Your task to perform on an android device: toggle improve location accuracy Image 0: 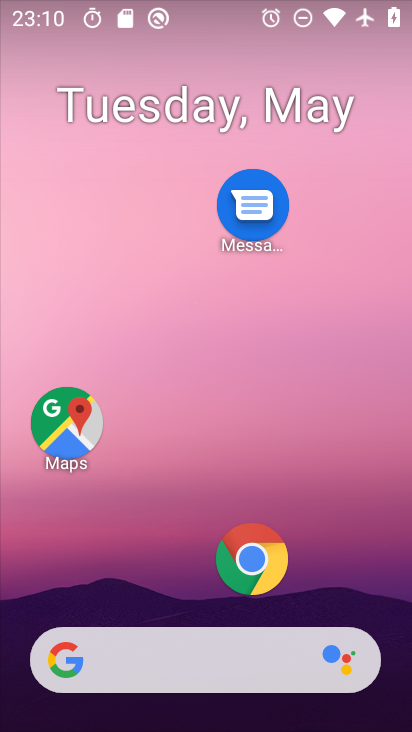
Step 0: drag from (205, 584) to (161, 233)
Your task to perform on an android device: toggle improve location accuracy Image 1: 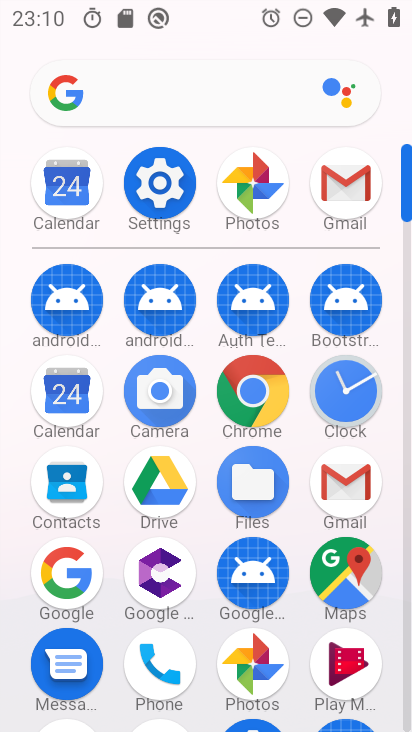
Step 1: click (169, 212)
Your task to perform on an android device: toggle improve location accuracy Image 2: 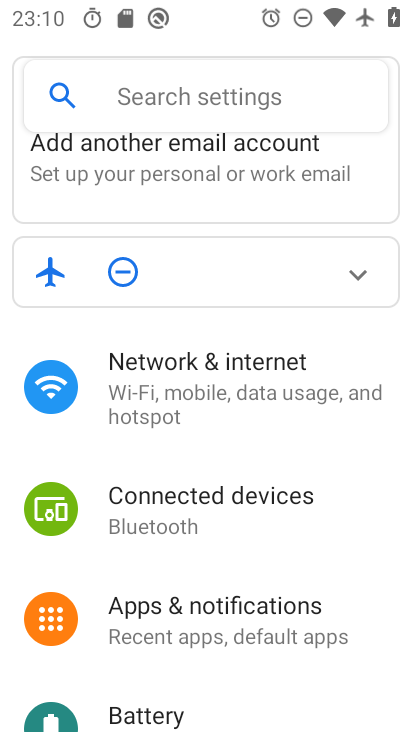
Step 2: drag from (261, 700) to (281, 435)
Your task to perform on an android device: toggle improve location accuracy Image 3: 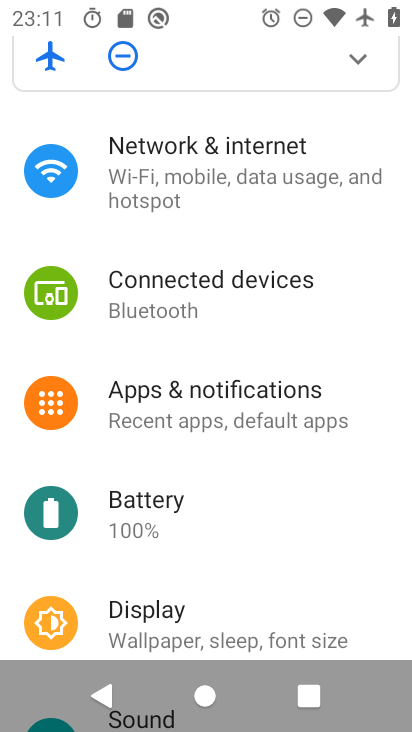
Step 3: drag from (253, 587) to (256, 345)
Your task to perform on an android device: toggle improve location accuracy Image 4: 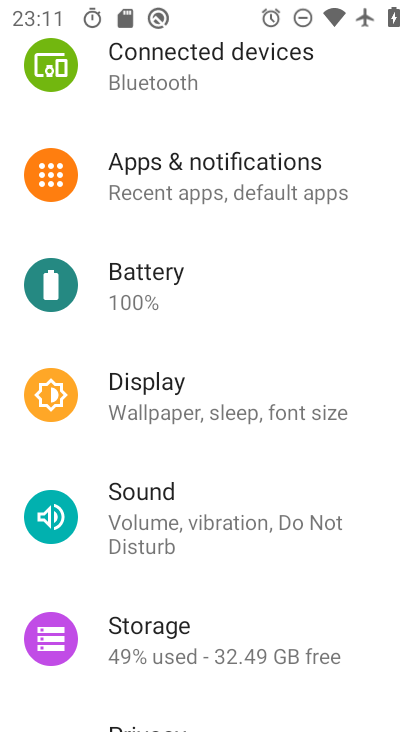
Step 4: drag from (196, 626) to (228, 348)
Your task to perform on an android device: toggle improve location accuracy Image 5: 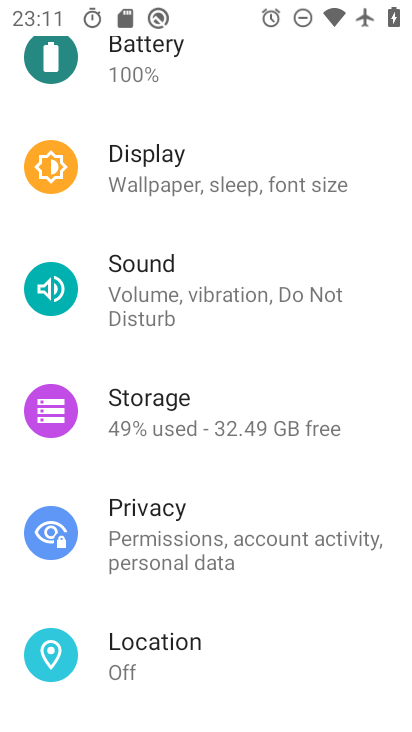
Step 5: click (189, 628)
Your task to perform on an android device: toggle improve location accuracy Image 6: 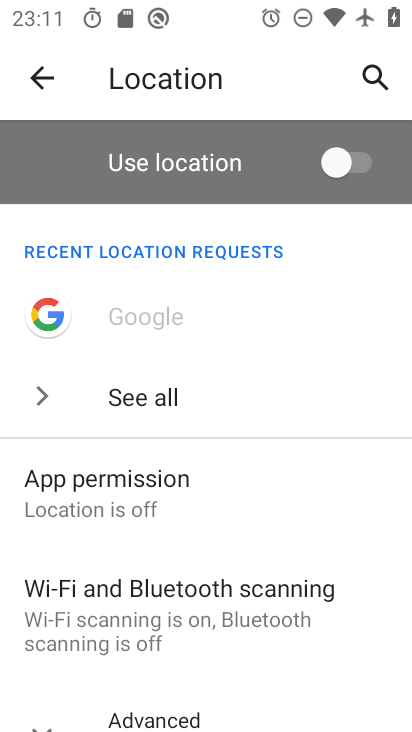
Step 6: drag from (200, 661) to (239, 411)
Your task to perform on an android device: toggle improve location accuracy Image 7: 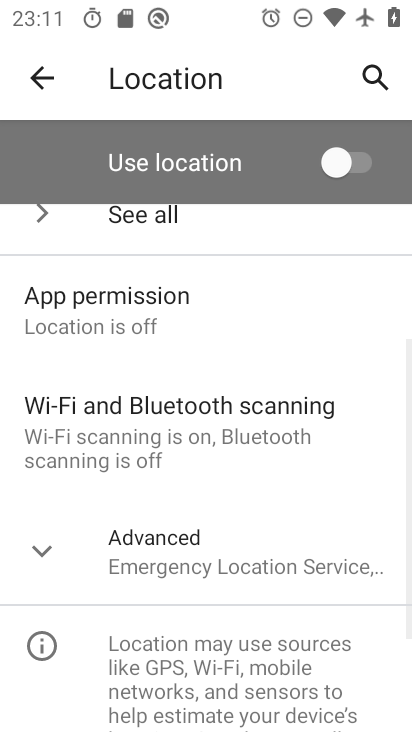
Step 7: click (207, 553)
Your task to perform on an android device: toggle improve location accuracy Image 8: 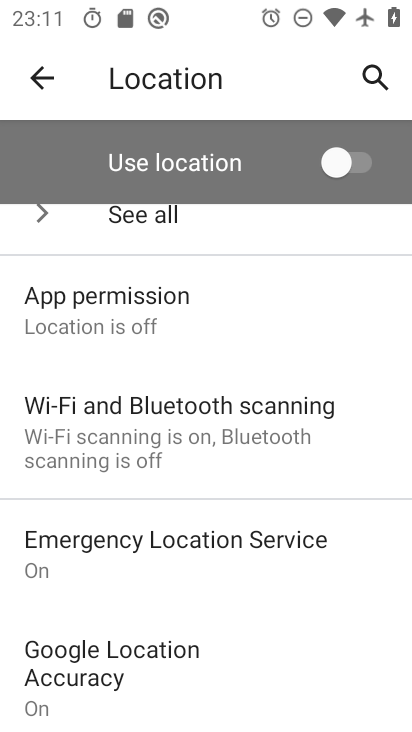
Step 8: drag from (207, 685) to (250, 478)
Your task to perform on an android device: toggle improve location accuracy Image 9: 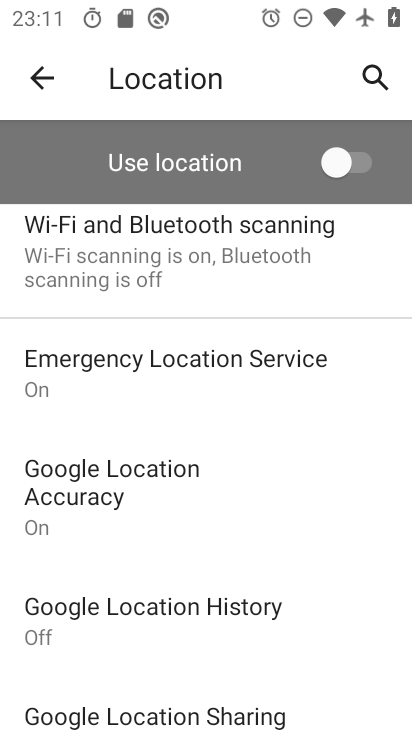
Step 9: click (194, 495)
Your task to perform on an android device: toggle improve location accuracy Image 10: 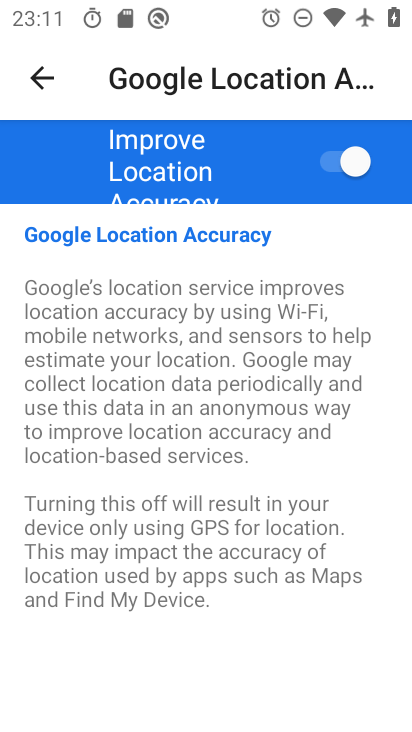
Step 10: click (332, 171)
Your task to perform on an android device: toggle improve location accuracy Image 11: 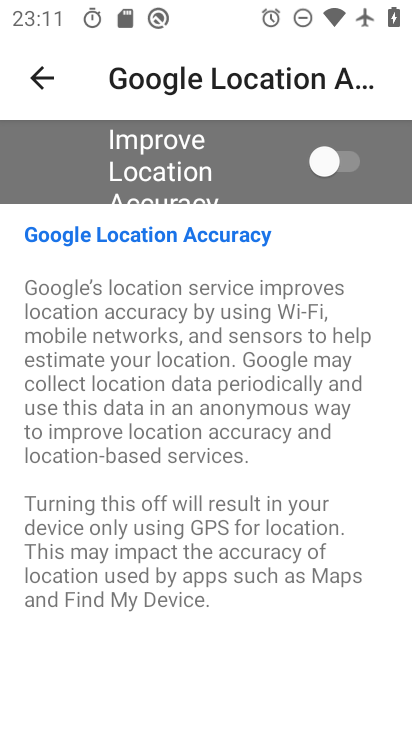
Step 11: task complete